Your task to perform on an android device: delete a single message in the gmail app Image 0: 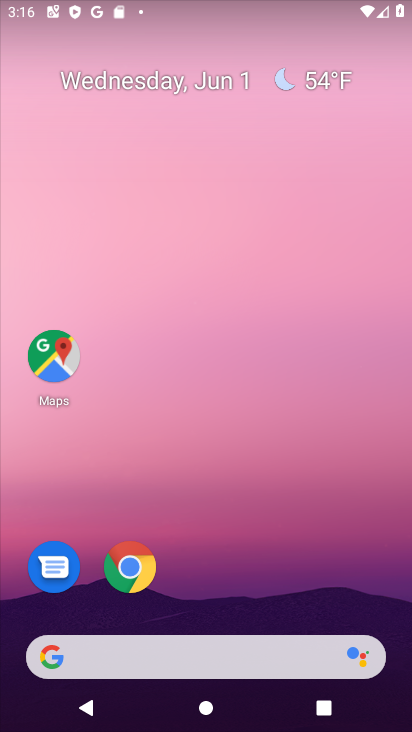
Step 0: drag from (137, 617) to (262, 230)
Your task to perform on an android device: delete a single message in the gmail app Image 1: 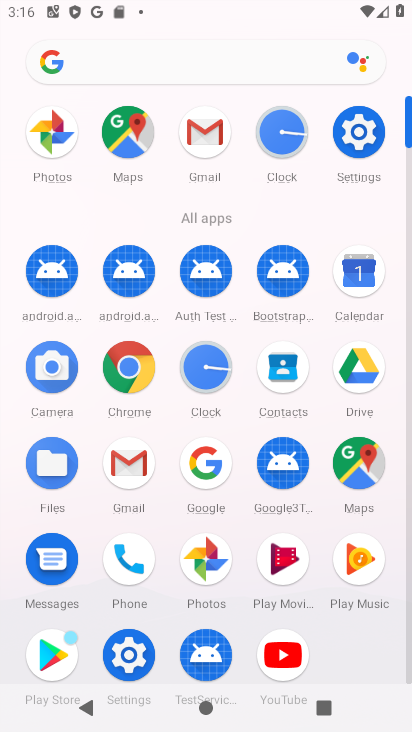
Step 1: click (129, 467)
Your task to perform on an android device: delete a single message in the gmail app Image 2: 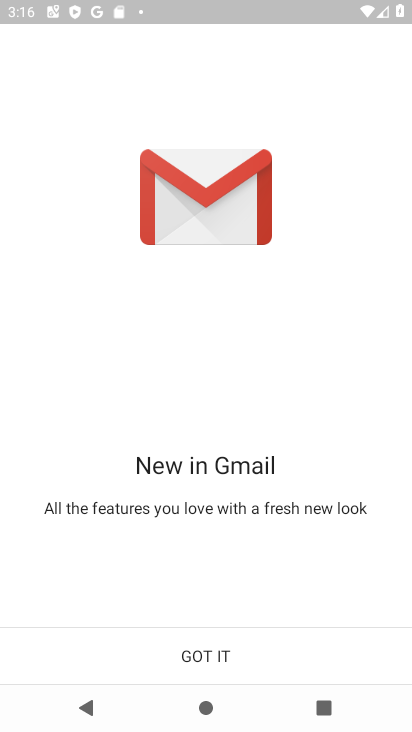
Step 2: click (233, 669)
Your task to perform on an android device: delete a single message in the gmail app Image 3: 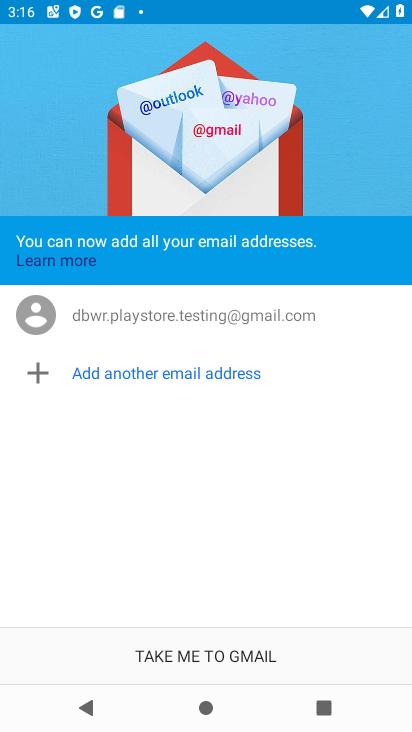
Step 3: click (233, 669)
Your task to perform on an android device: delete a single message in the gmail app Image 4: 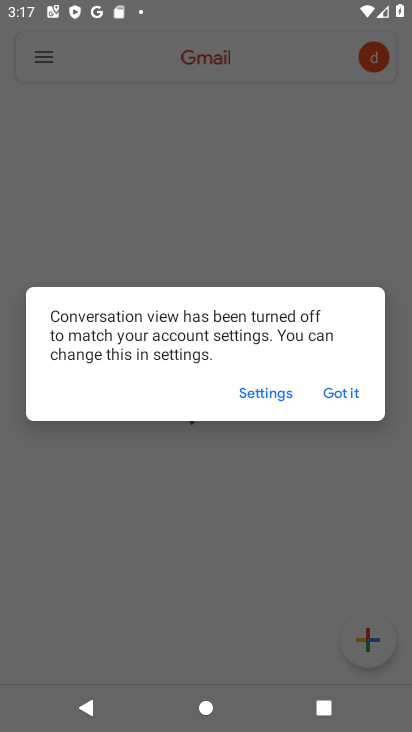
Step 4: click (343, 407)
Your task to perform on an android device: delete a single message in the gmail app Image 5: 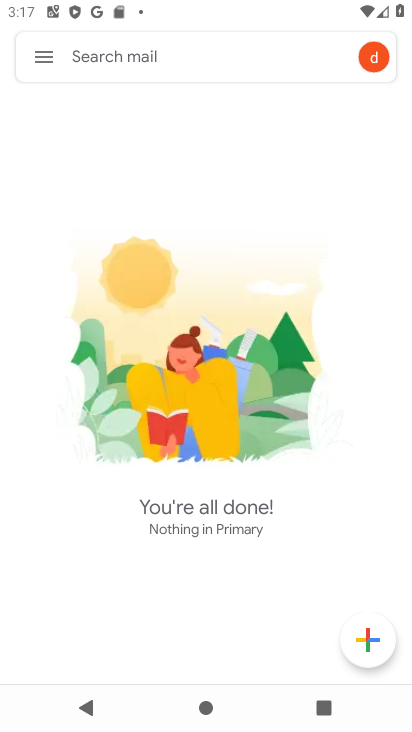
Step 5: click (38, 69)
Your task to perform on an android device: delete a single message in the gmail app Image 6: 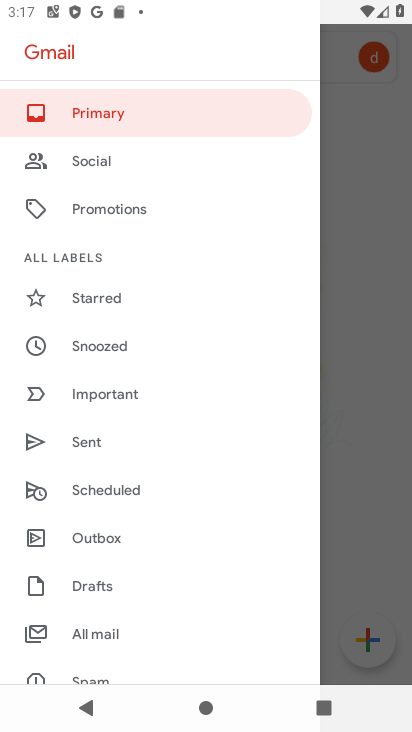
Step 6: drag from (113, 635) to (194, 385)
Your task to perform on an android device: delete a single message in the gmail app Image 7: 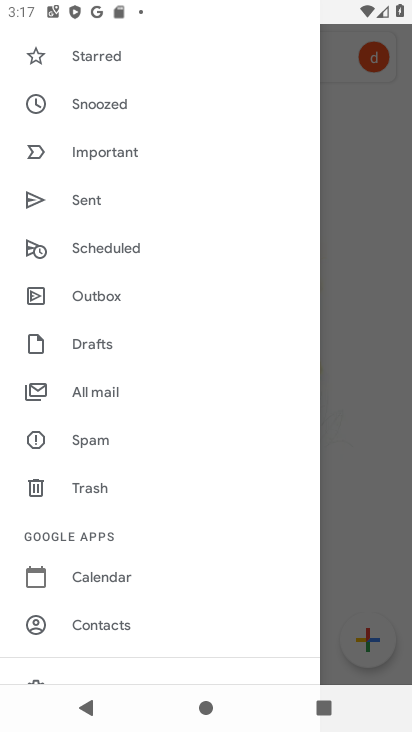
Step 7: drag from (158, 650) to (230, 401)
Your task to perform on an android device: delete a single message in the gmail app Image 8: 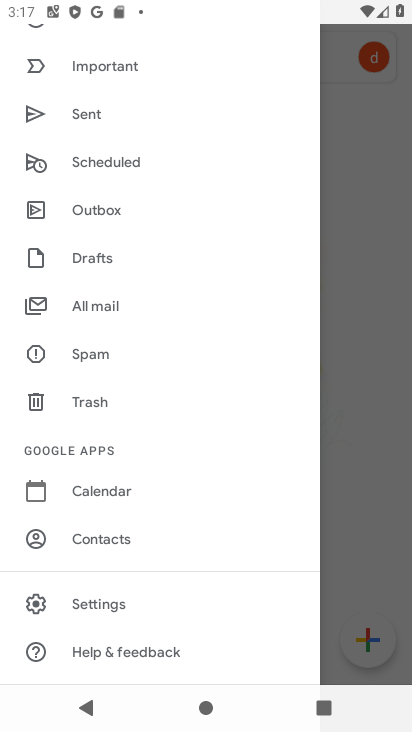
Step 8: click (133, 293)
Your task to perform on an android device: delete a single message in the gmail app Image 9: 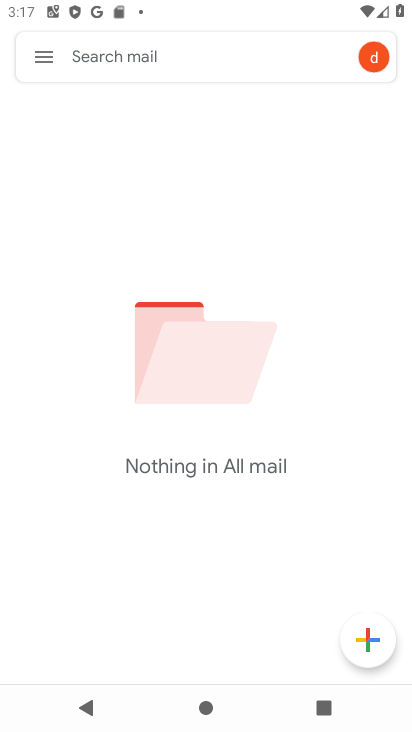
Step 9: task complete